Your task to perform on an android device: Open battery settings Image 0: 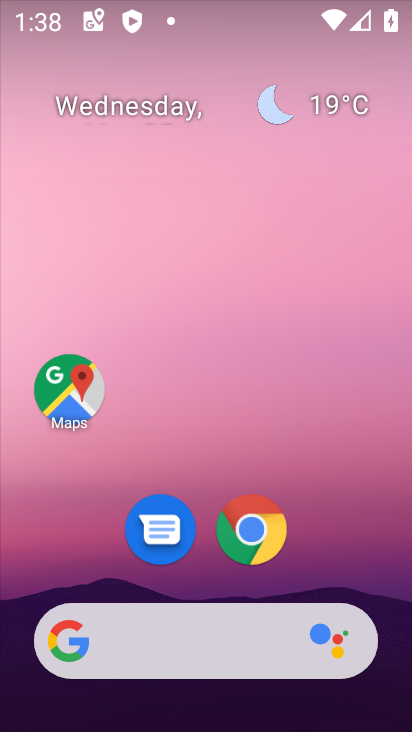
Step 0: drag from (110, 595) to (174, 156)
Your task to perform on an android device: Open battery settings Image 1: 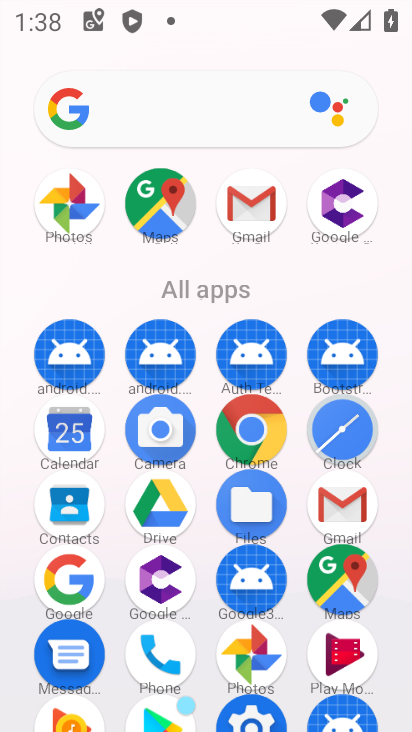
Step 1: drag from (186, 640) to (224, 404)
Your task to perform on an android device: Open battery settings Image 2: 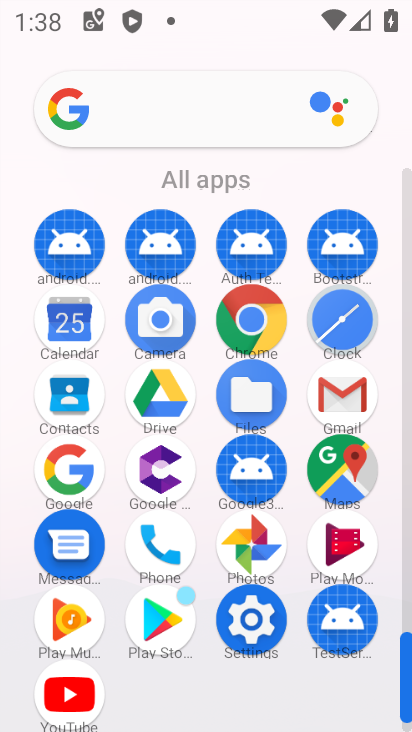
Step 2: click (259, 605)
Your task to perform on an android device: Open battery settings Image 3: 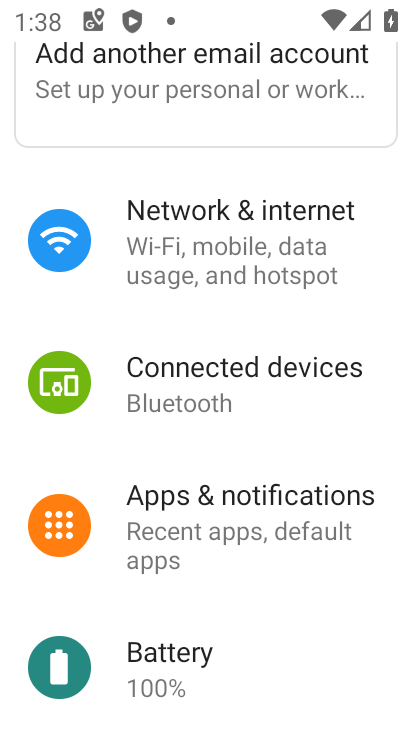
Step 3: click (191, 684)
Your task to perform on an android device: Open battery settings Image 4: 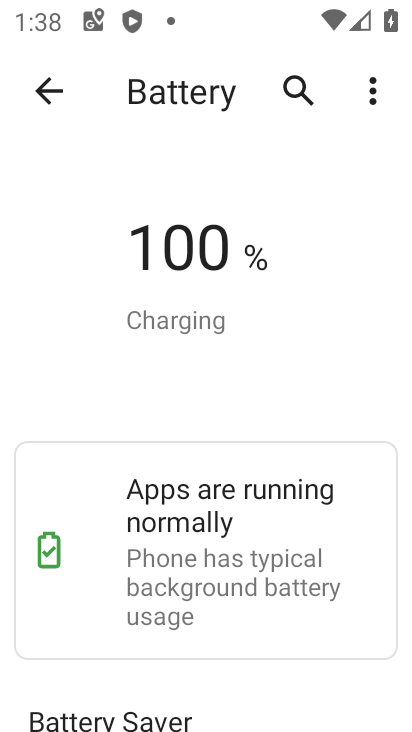
Step 4: task complete